Your task to perform on an android device: check storage Image 0: 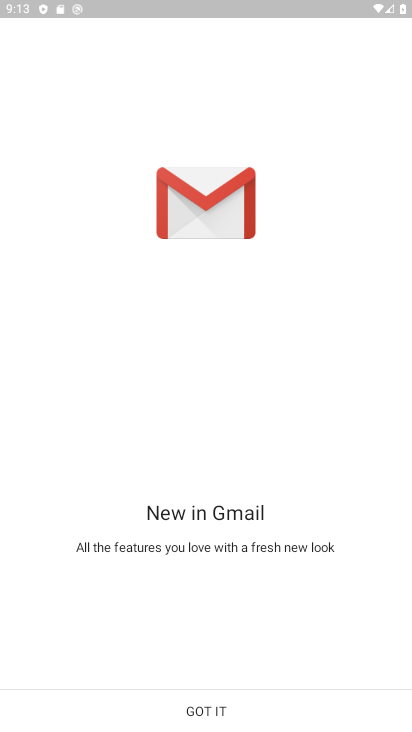
Step 0: press home button
Your task to perform on an android device: check storage Image 1: 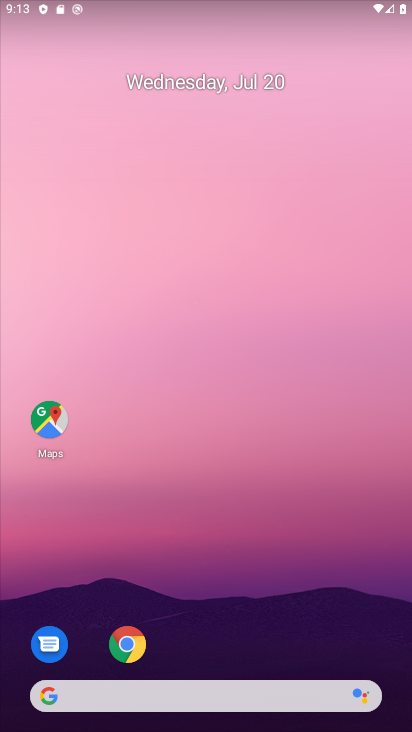
Step 1: drag from (254, 519) to (247, 192)
Your task to perform on an android device: check storage Image 2: 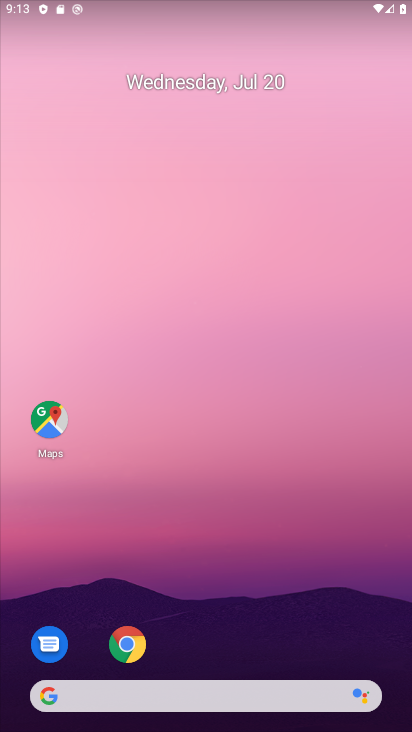
Step 2: drag from (216, 376) to (200, 115)
Your task to perform on an android device: check storage Image 3: 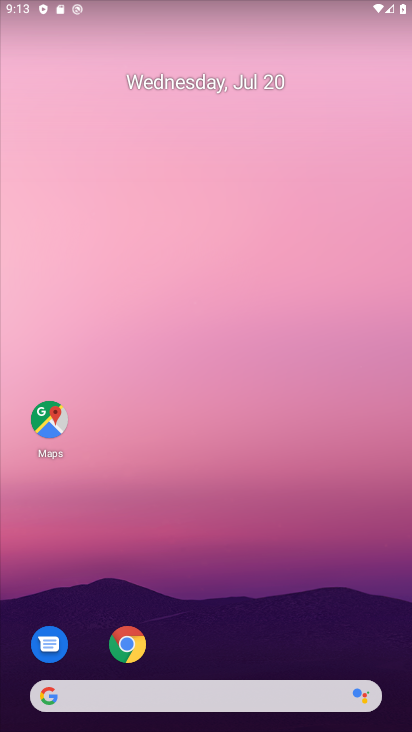
Step 3: drag from (226, 468) to (202, 183)
Your task to perform on an android device: check storage Image 4: 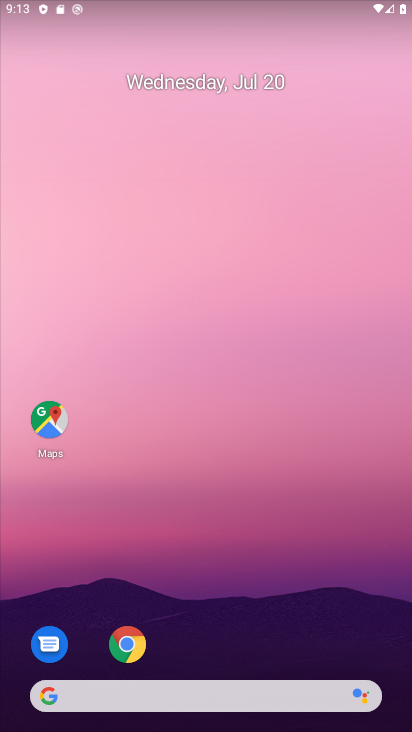
Step 4: drag from (233, 656) to (214, 294)
Your task to perform on an android device: check storage Image 5: 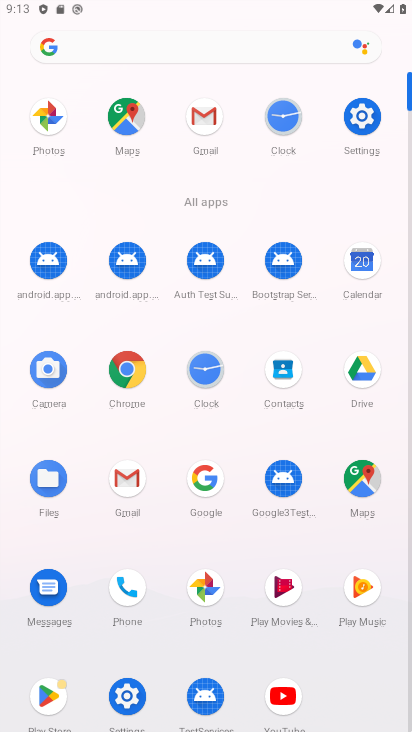
Step 5: click (354, 115)
Your task to perform on an android device: check storage Image 6: 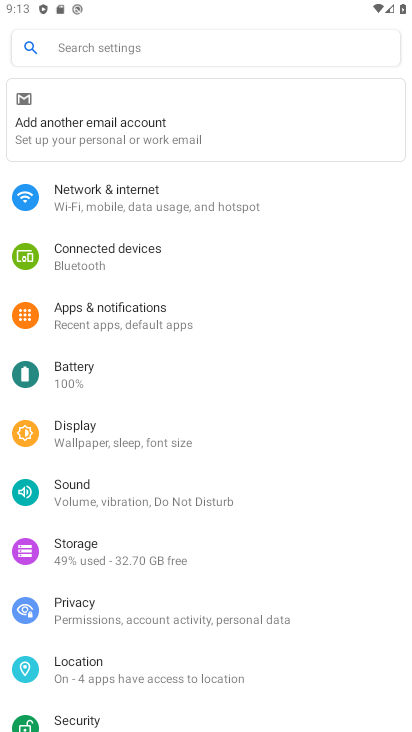
Step 6: click (85, 550)
Your task to perform on an android device: check storage Image 7: 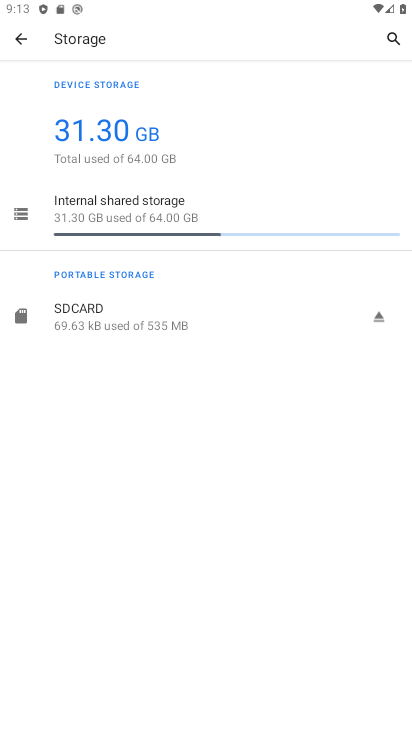
Step 7: task complete